Your task to perform on an android device: Go to eBay Image 0: 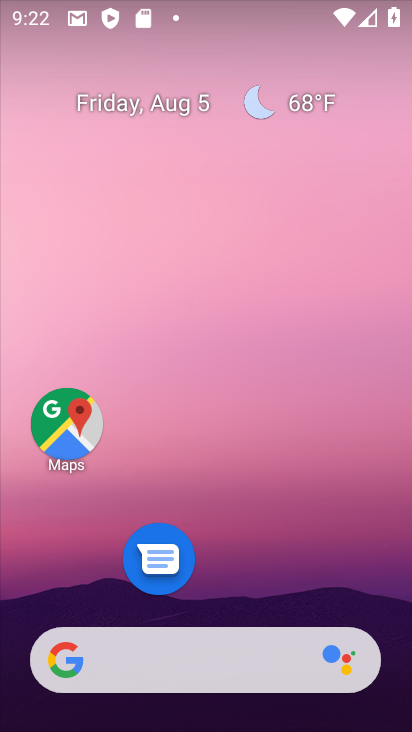
Step 0: drag from (259, 509) to (269, 150)
Your task to perform on an android device: Go to eBay Image 1: 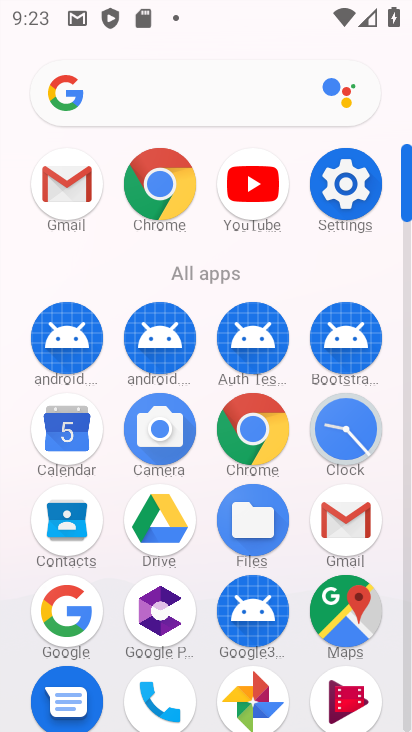
Step 1: click (254, 442)
Your task to perform on an android device: Go to eBay Image 2: 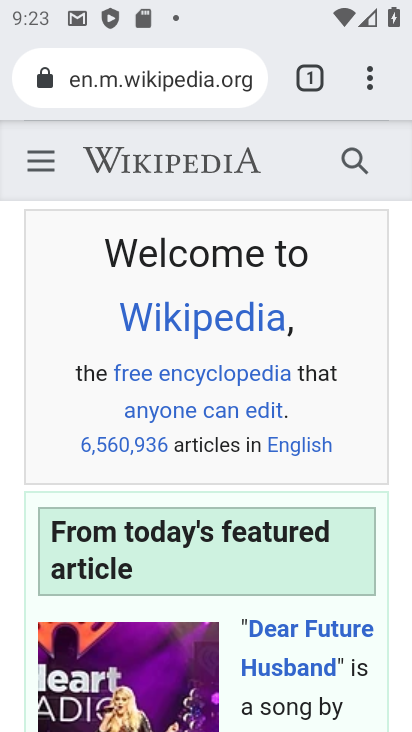
Step 2: click (183, 70)
Your task to perform on an android device: Go to eBay Image 3: 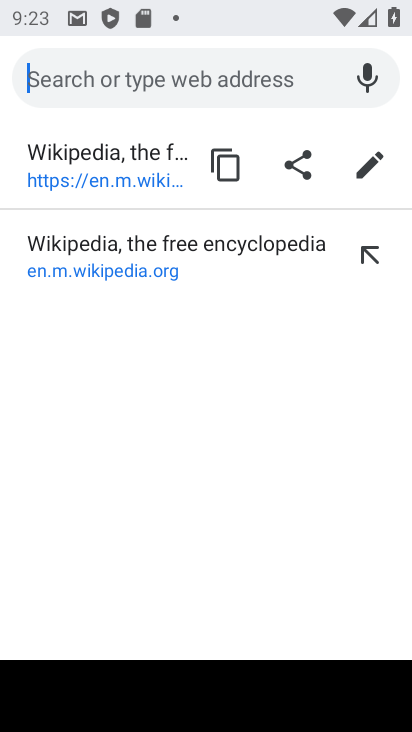
Step 3: type "ebay"
Your task to perform on an android device: Go to eBay Image 4: 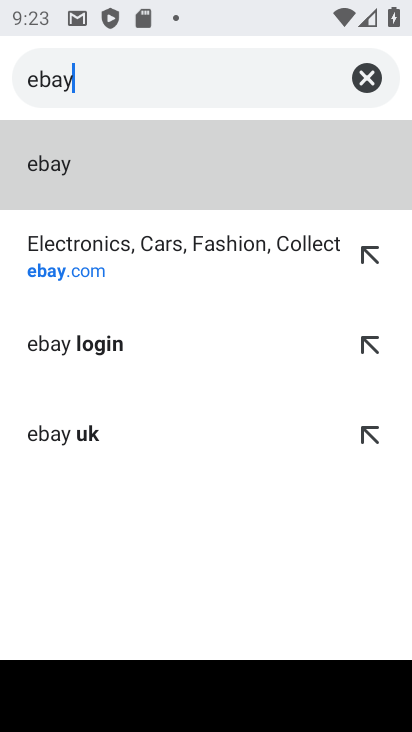
Step 4: click (193, 266)
Your task to perform on an android device: Go to eBay Image 5: 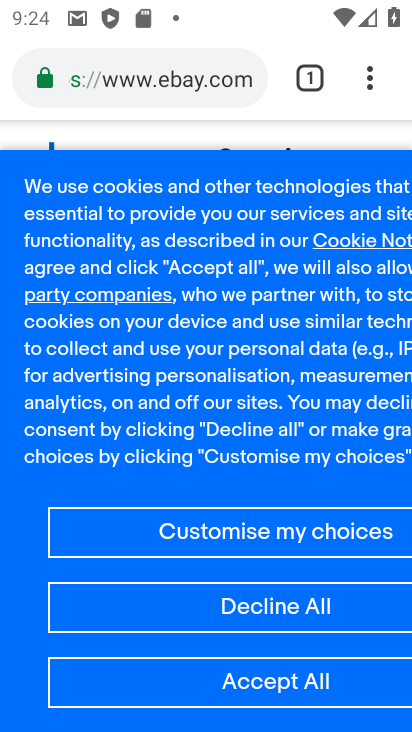
Step 5: task complete